Your task to perform on an android device: Go to privacy settings Image 0: 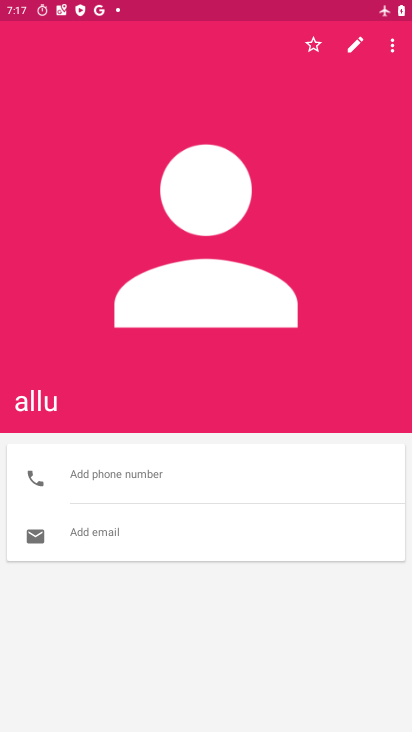
Step 0: press home button
Your task to perform on an android device: Go to privacy settings Image 1: 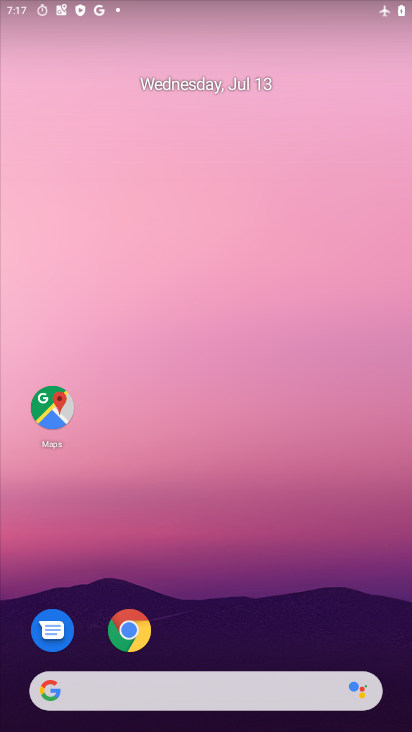
Step 1: drag from (366, 696) to (197, 4)
Your task to perform on an android device: Go to privacy settings Image 2: 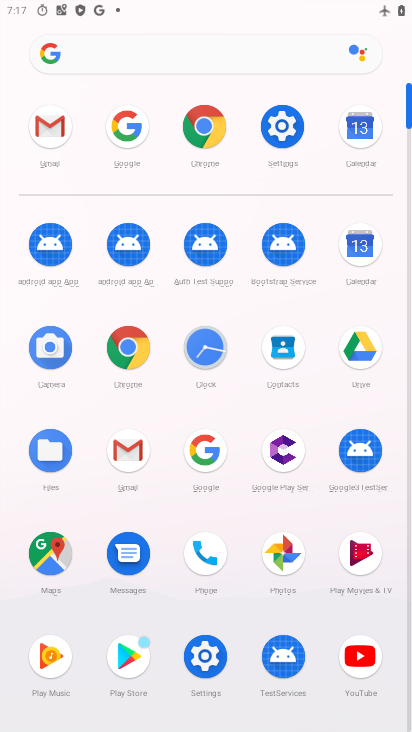
Step 2: click (272, 135)
Your task to perform on an android device: Go to privacy settings Image 3: 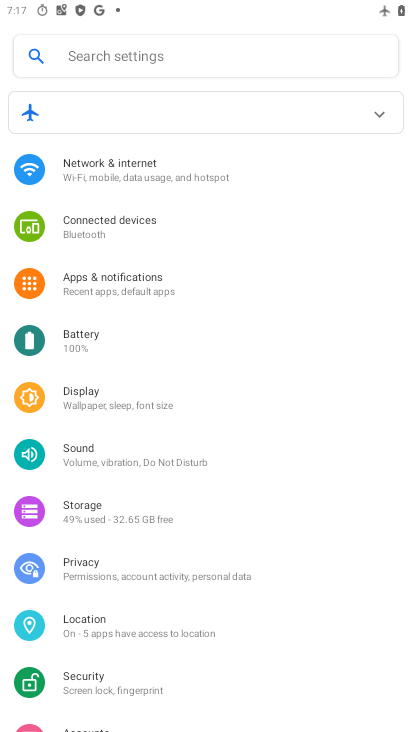
Step 3: click (117, 569)
Your task to perform on an android device: Go to privacy settings Image 4: 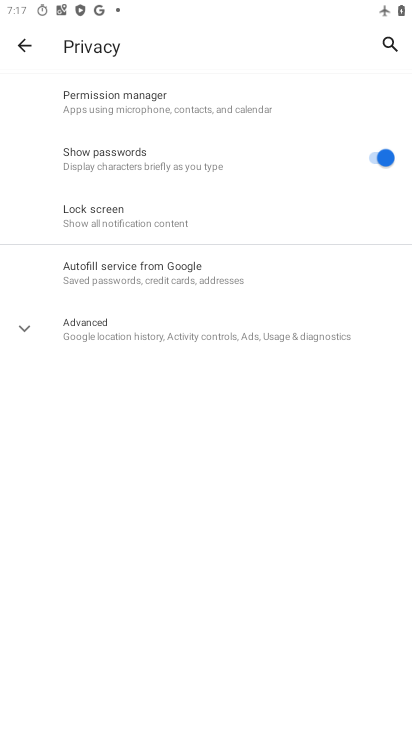
Step 4: task complete